Your task to perform on an android device: turn off wifi Image 0: 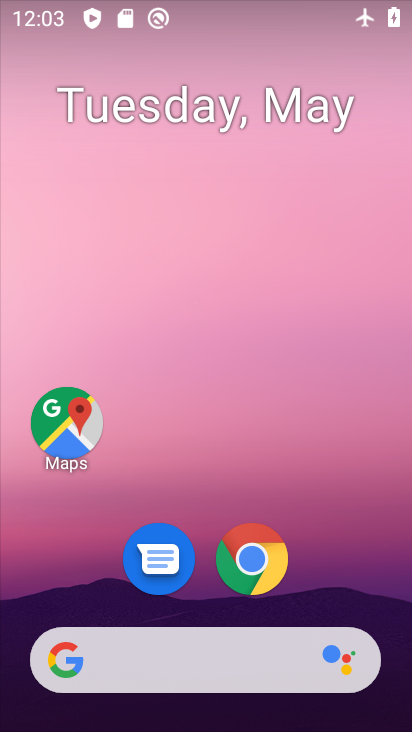
Step 0: drag from (53, 610) to (207, 155)
Your task to perform on an android device: turn off wifi Image 1: 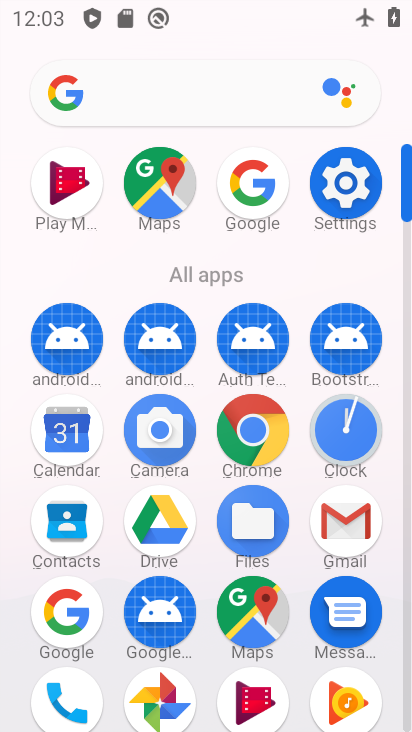
Step 1: drag from (215, 537) to (269, 354)
Your task to perform on an android device: turn off wifi Image 2: 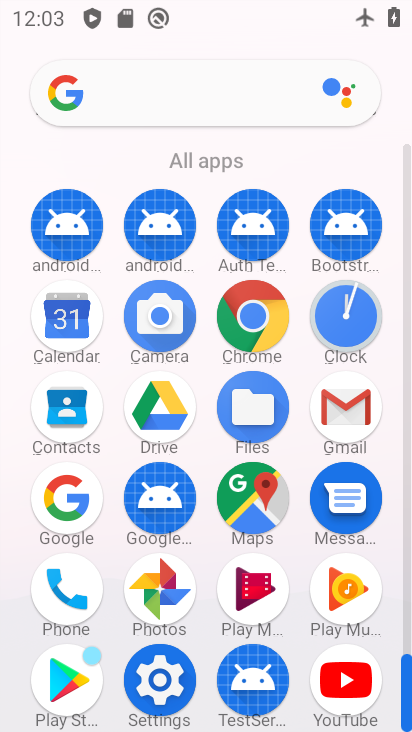
Step 2: click (151, 668)
Your task to perform on an android device: turn off wifi Image 3: 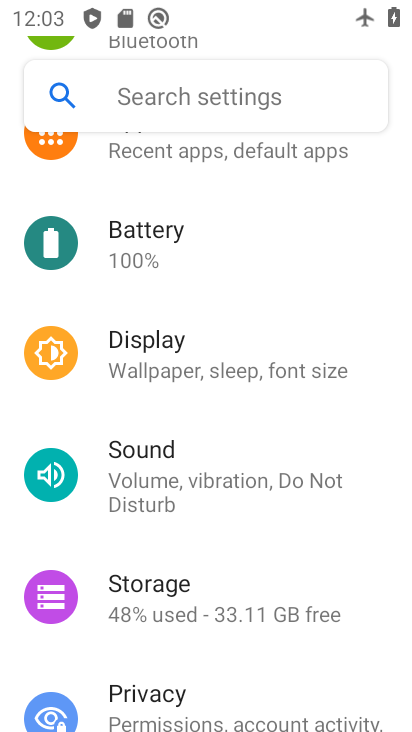
Step 3: drag from (274, 207) to (270, 586)
Your task to perform on an android device: turn off wifi Image 4: 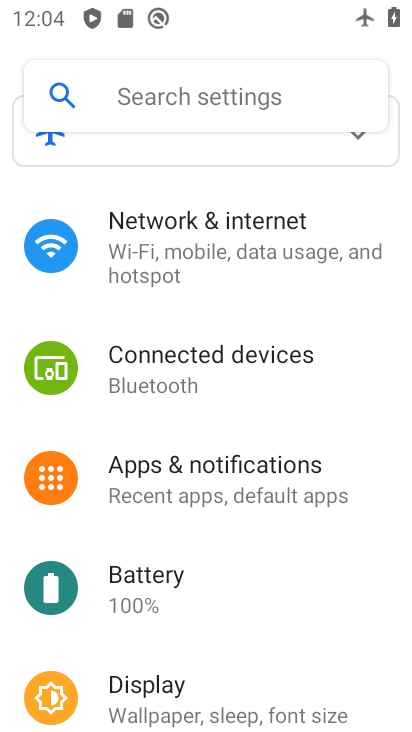
Step 4: click (270, 258)
Your task to perform on an android device: turn off wifi Image 5: 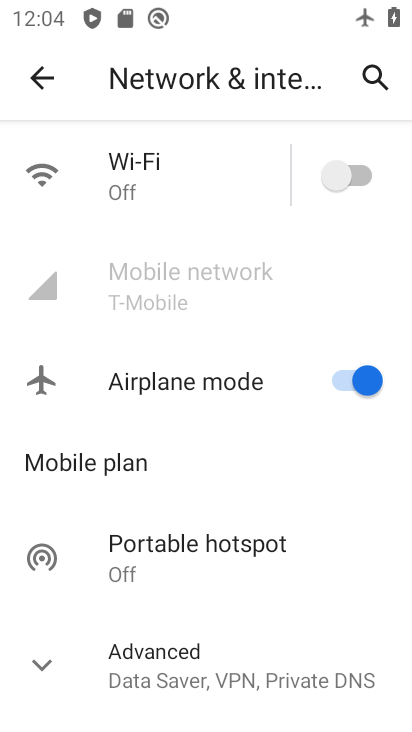
Step 5: task complete